Your task to perform on an android device: Go to CNN.com Image 0: 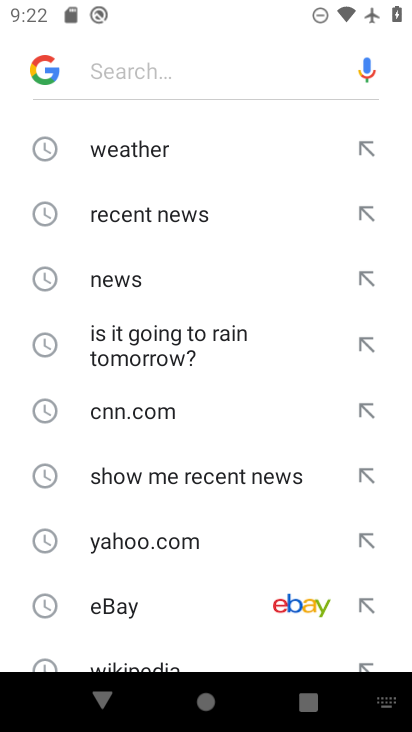
Step 0: press home button
Your task to perform on an android device: Go to CNN.com Image 1: 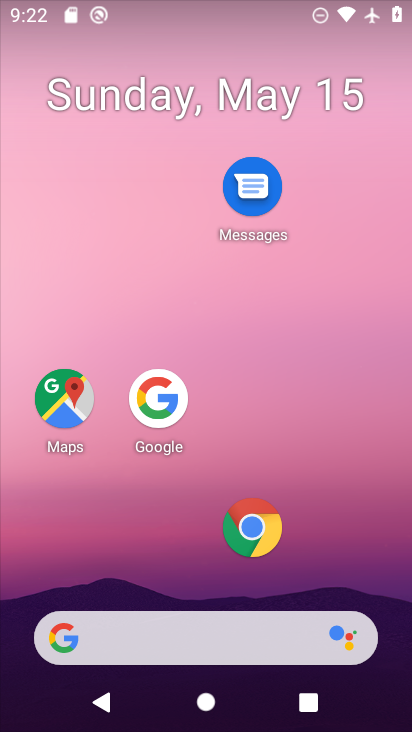
Step 1: drag from (254, 376) to (332, 121)
Your task to perform on an android device: Go to CNN.com Image 2: 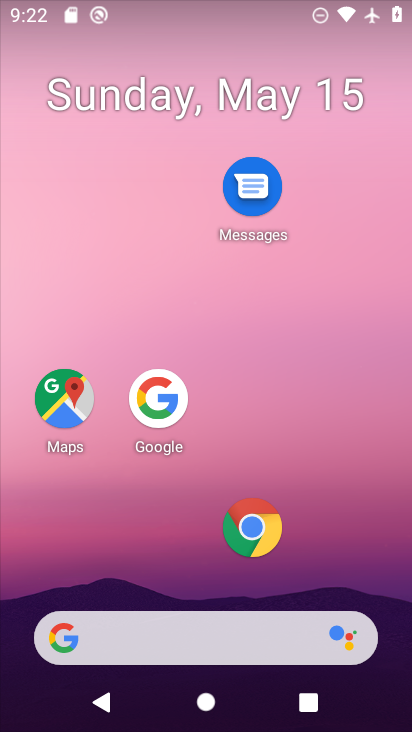
Step 2: click (259, 526)
Your task to perform on an android device: Go to CNN.com Image 3: 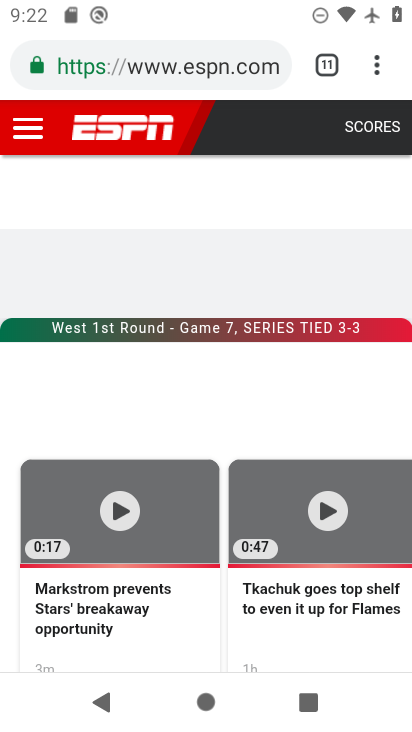
Step 3: drag from (376, 68) to (263, 119)
Your task to perform on an android device: Go to CNN.com Image 4: 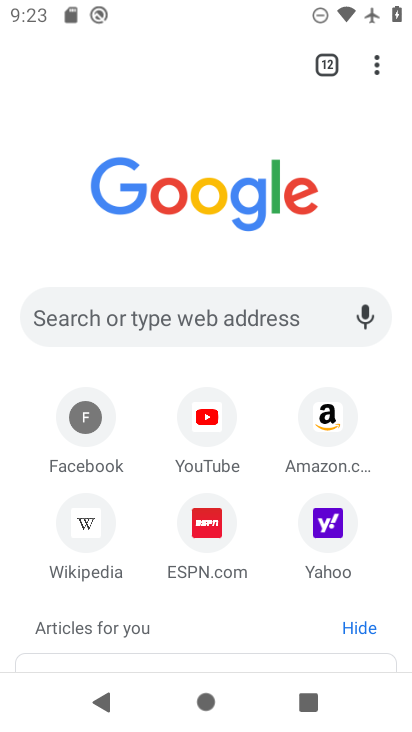
Step 4: type "cnn.com"
Your task to perform on an android device: Go to CNN.com Image 5: 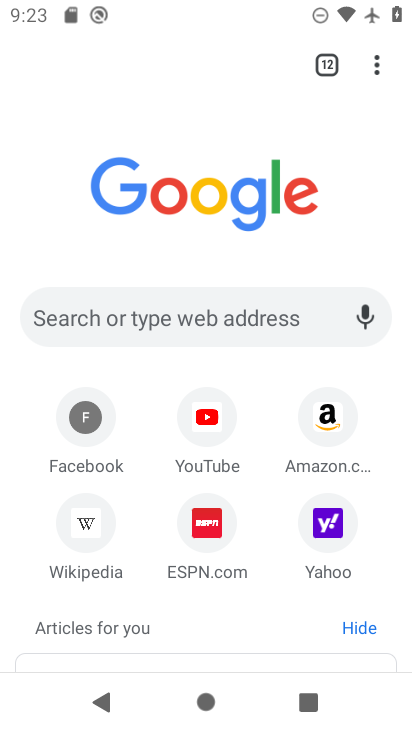
Step 5: click (89, 312)
Your task to perform on an android device: Go to CNN.com Image 6: 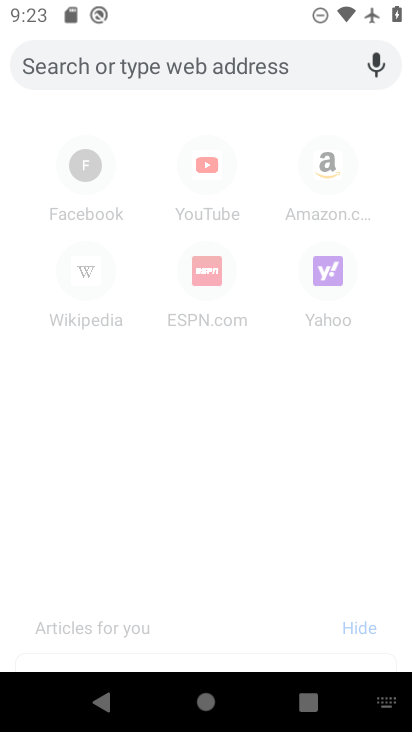
Step 6: type "cnn.com"
Your task to perform on an android device: Go to CNN.com Image 7: 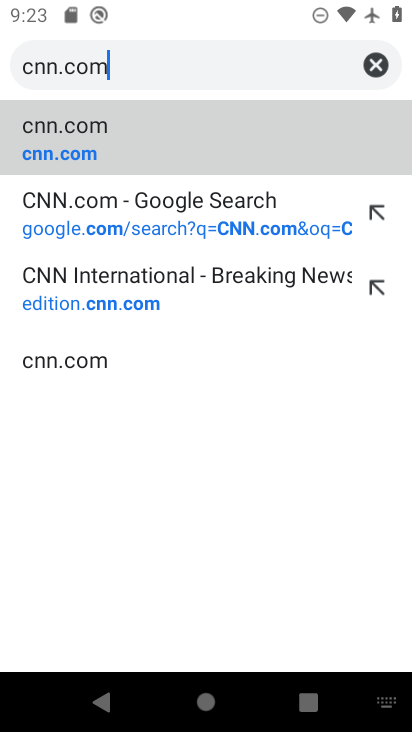
Step 7: click (159, 155)
Your task to perform on an android device: Go to CNN.com Image 8: 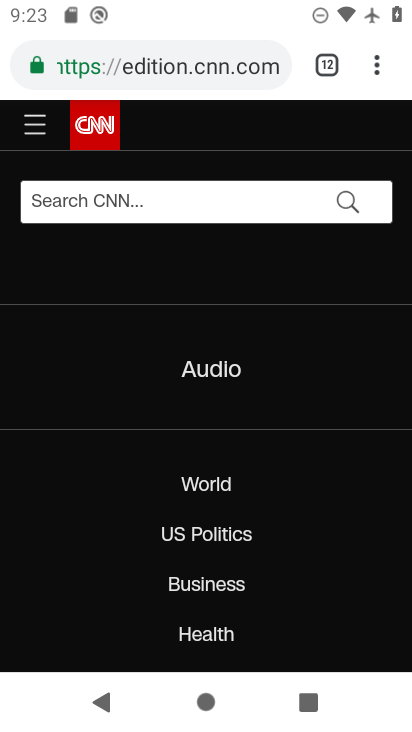
Step 8: task complete